Your task to perform on an android device: Search for Italian restaurants on Maps Image 0: 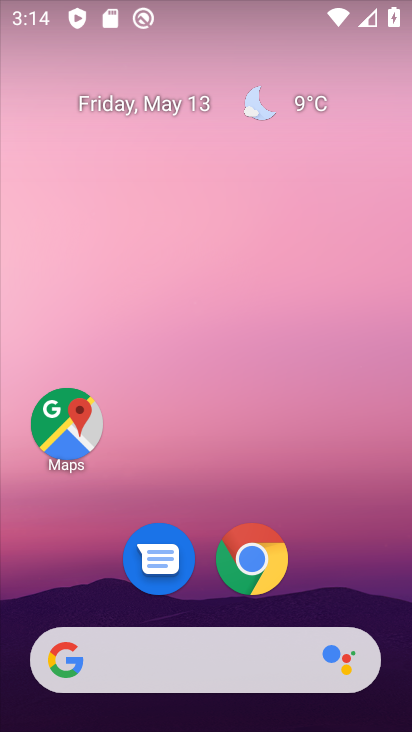
Step 0: click (68, 425)
Your task to perform on an android device: Search for Italian restaurants on Maps Image 1: 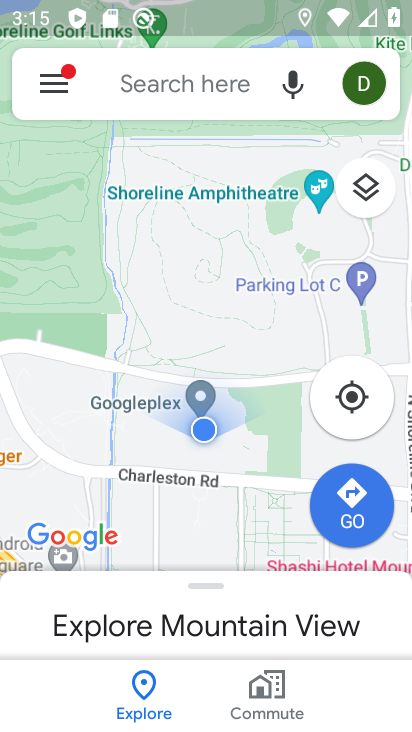
Step 1: click (157, 81)
Your task to perform on an android device: Search for Italian restaurants on Maps Image 2: 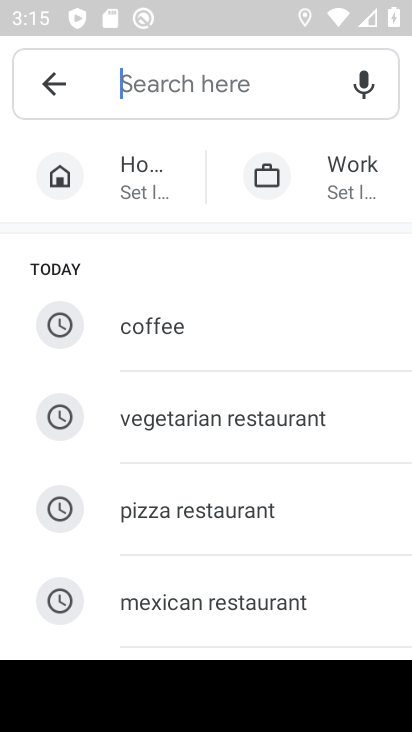
Step 2: type "italian restaurants"
Your task to perform on an android device: Search for Italian restaurants on Maps Image 3: 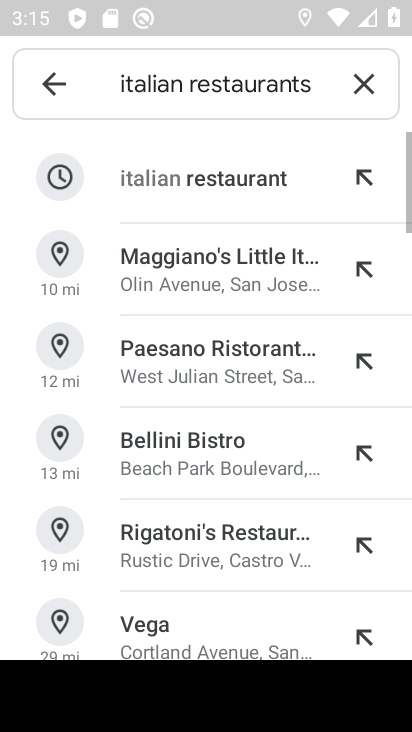
Step 3: click (178, 172)
Your task to perform on an android device: Search for Italian restaurants on Maps Image 4: 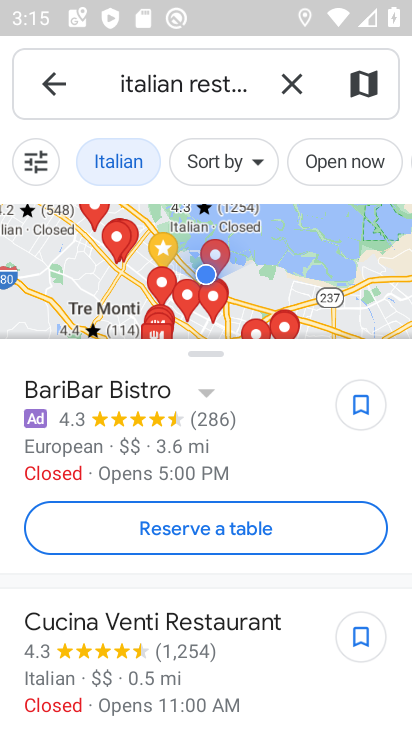
Step 4: task complete